Your task to perform on an android device: uninstall "eBay: The shopping marketplace" Image 0: 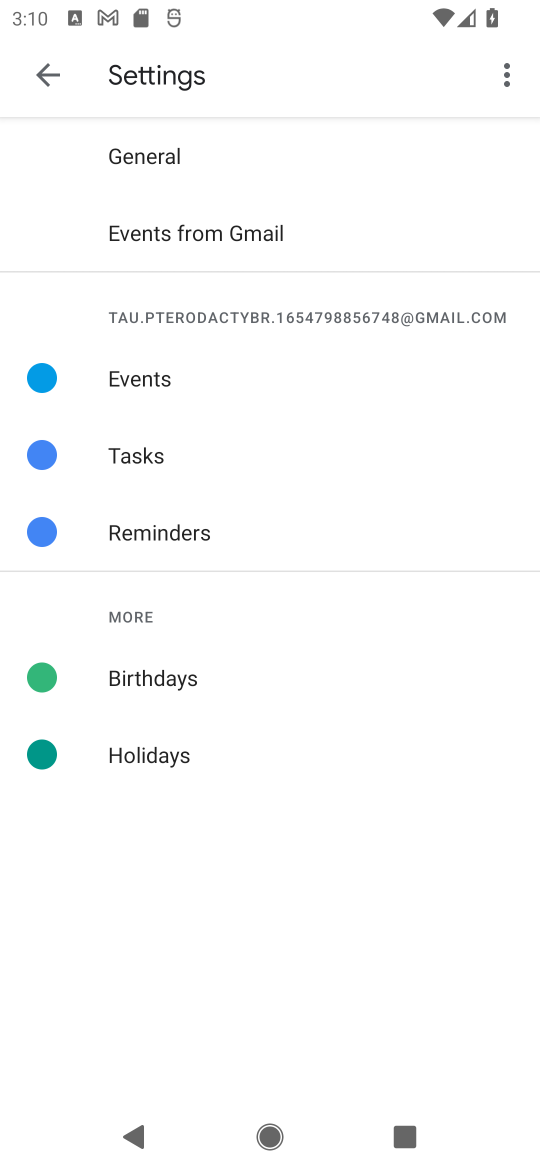
Step 0: press home button
Your task to perform on an android device: uninstall "eBay: The shopping marketplace" Image 1: 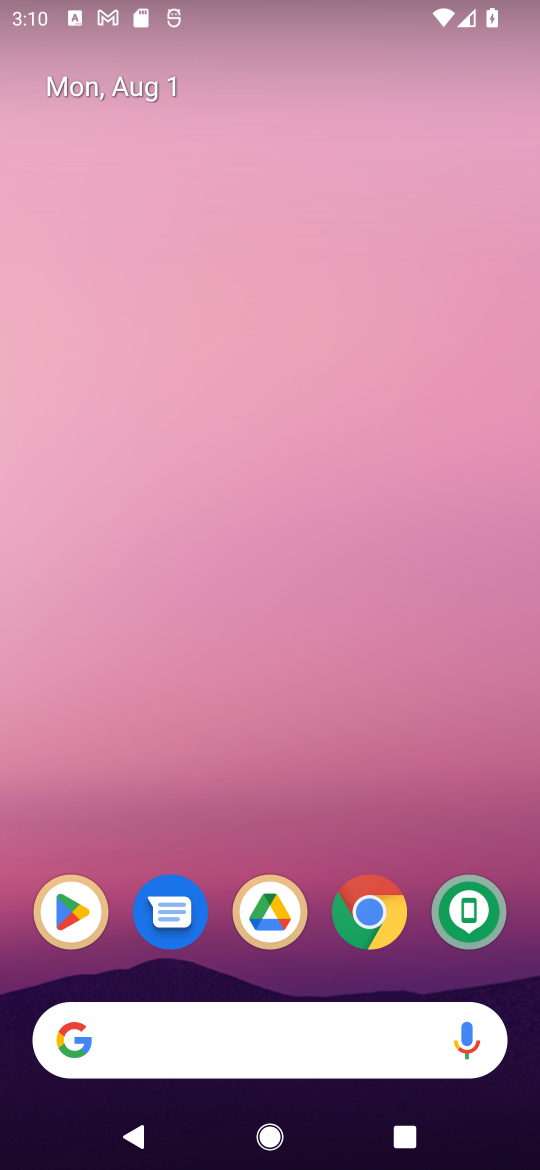
Step 1: click (58, 910)
Your task to perform on an android device: uninstall "eBay: The shopping marketplace" Image 2: 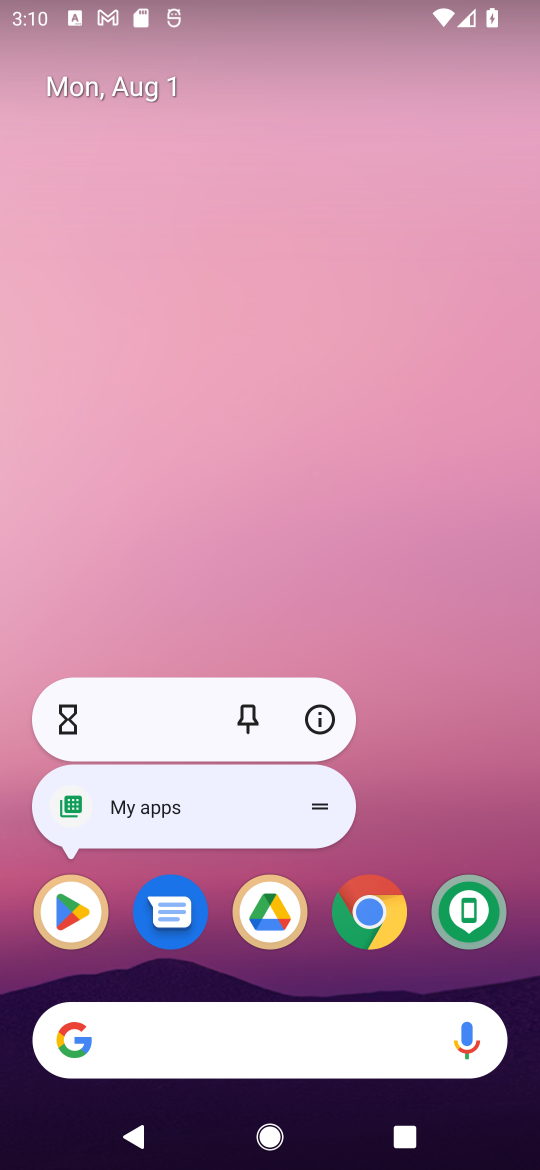
Step 2: click (67, 929)
Your task to perform on an android device: uninstall "eBay: The shopping marketplace" Image 3: 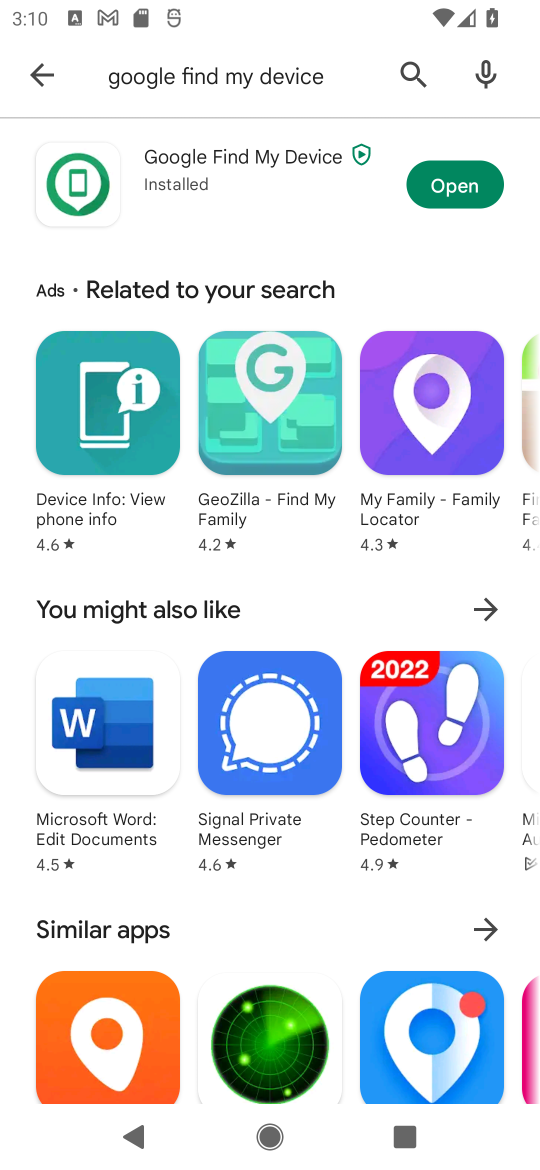
Step 3: click (400, 72)
Your task to perform on an android device: uninstall "eBay: The shopping marketplace" Image 4: 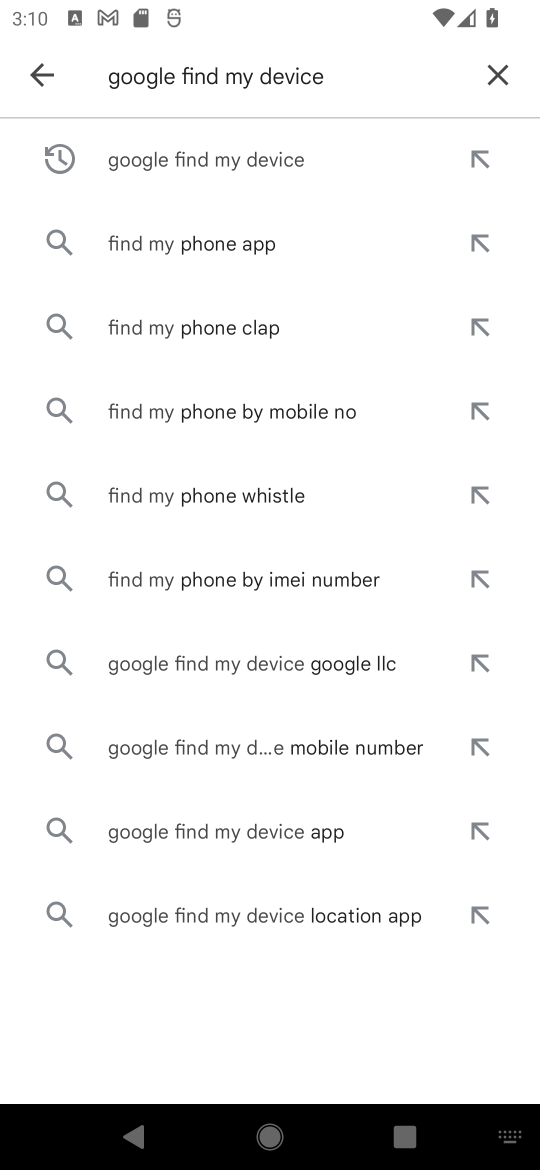
Step 4: click (493, 86)
Your task to perform on an android device: uninstall "eBay: The shopping marketplace" Image 5: 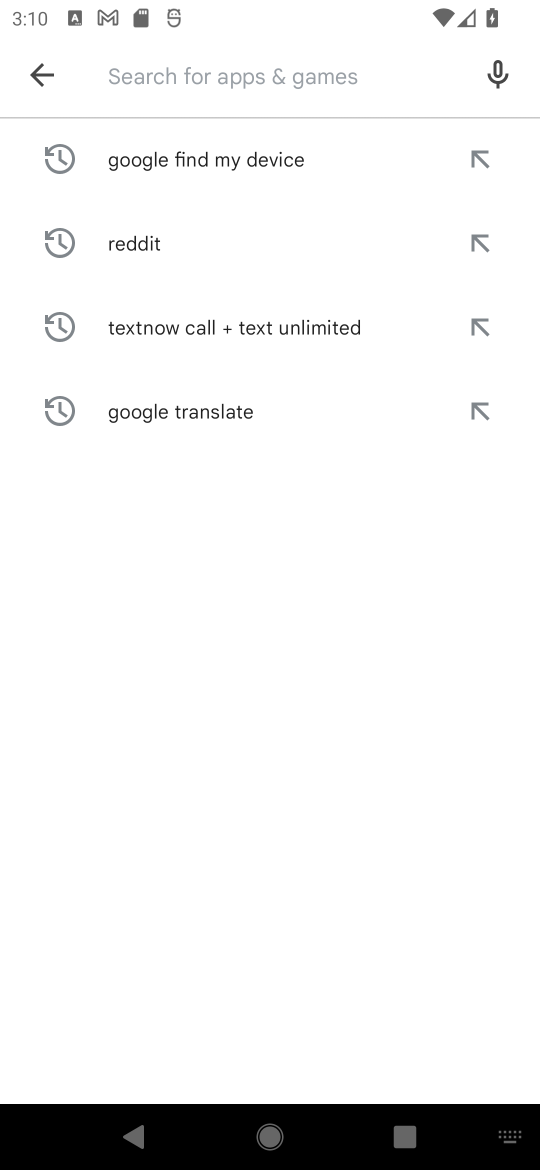
Step 5: type "eBay: The shopping marketplace"
Your task to perform on an android device: uninstall "eBay: The shopping marketplace" Image 6: 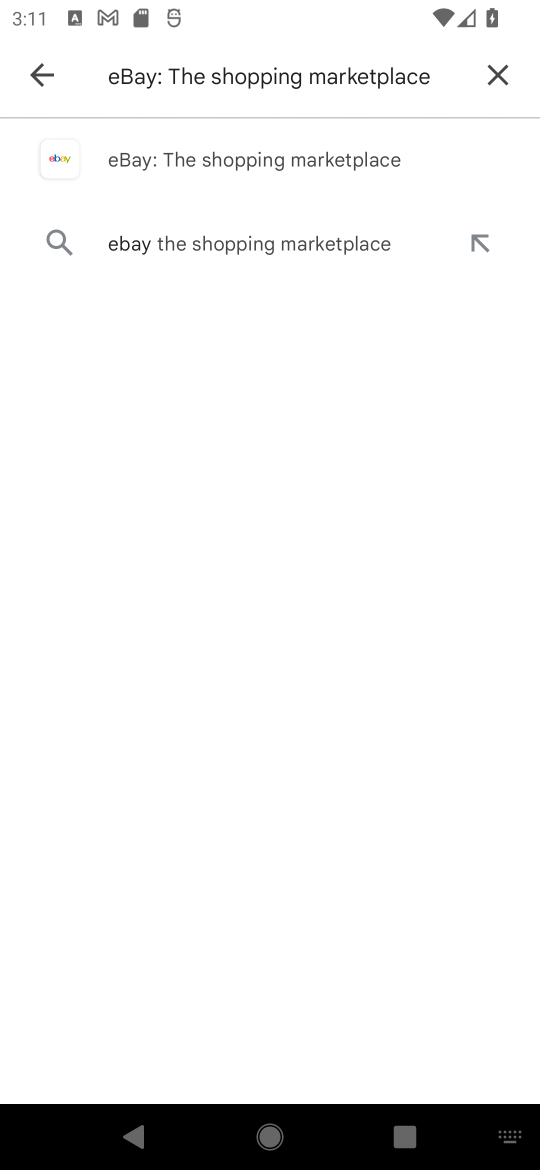
Step 6: click (189, 158)
Your task to perform on an android device: uninstall "eBay: The shopping marketplace" Image 7: 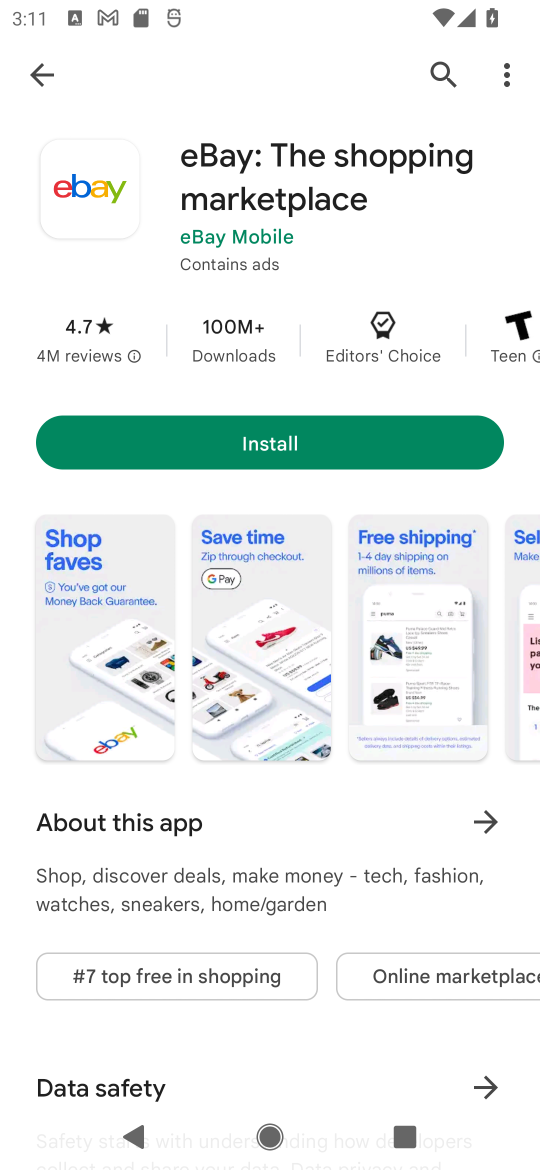
Step 7: task complete